Your task to perform on an android device: Search for sushi restaurants on Maps Image 0: 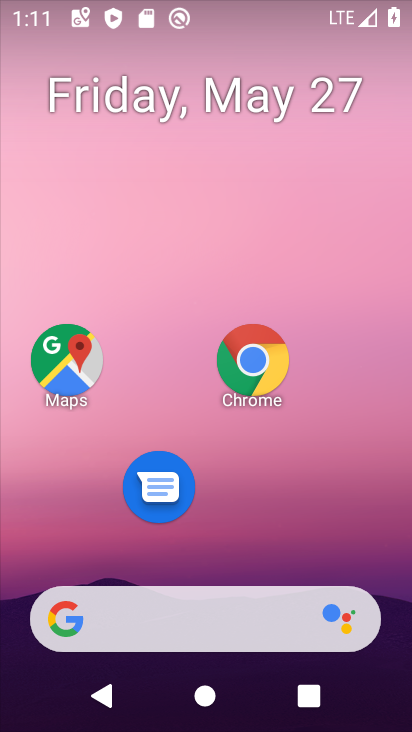
Step 0: click (52, 361)
Your task to perform on an android device: Search for sushi restaurants on Maps Image 1: 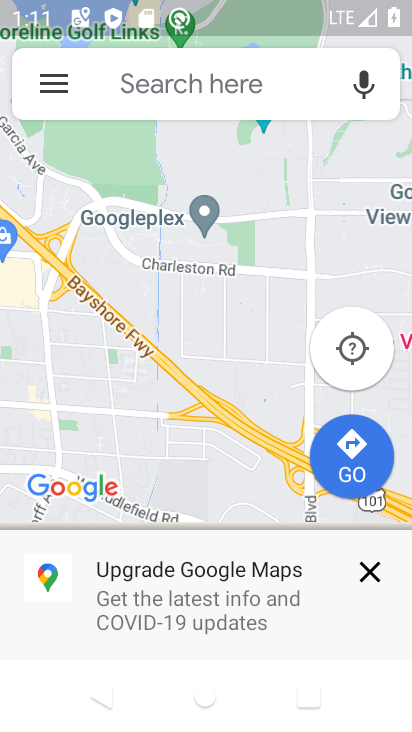
Step 1: click (196, 99)
Your task to perform on an android device: Search for sushi restaurants on Maps Image 2: 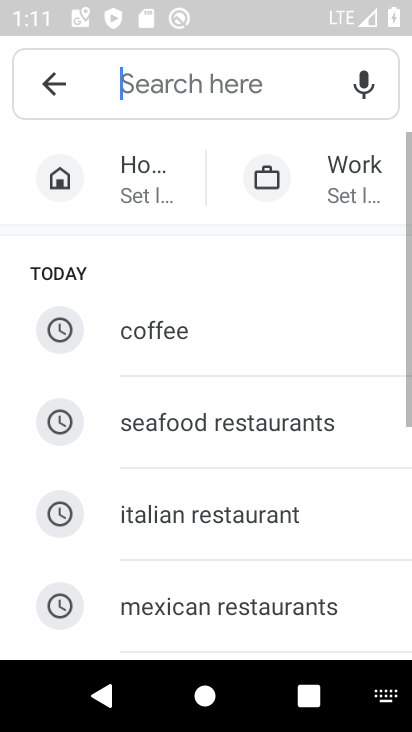
Step 2: drag from (230, 510) to (221, 198)
Your task to perform on an android device: Search for sushi restaurants on Maps Image 3: 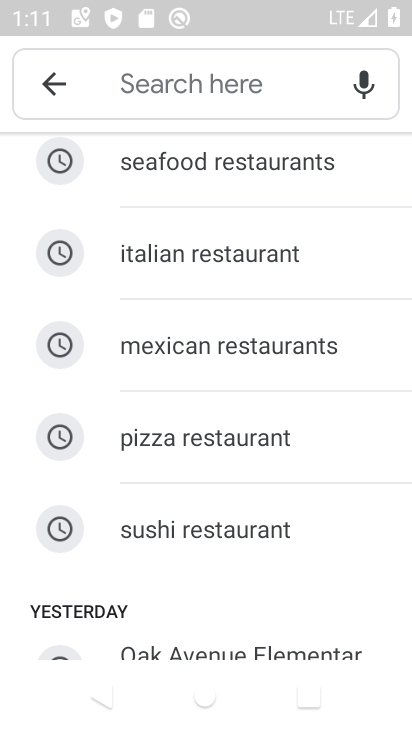
Step 3: click (205, 518)
Your task to perform on an android device: Search for sushi restaurants on Maps Image 4: 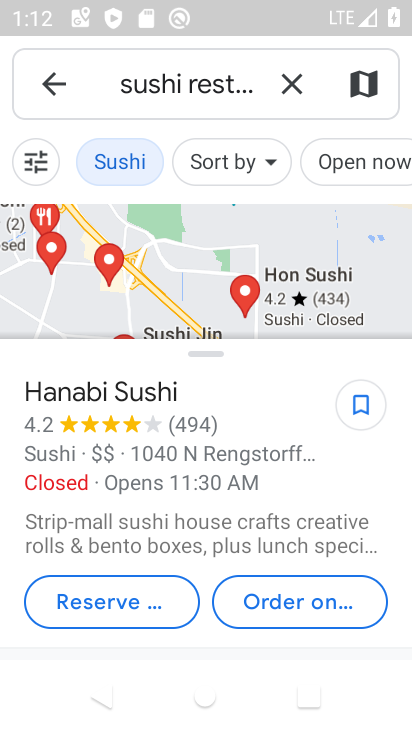
Step 4: task complete